Your task to perform on an android device: turn off airplane mode Image 0: 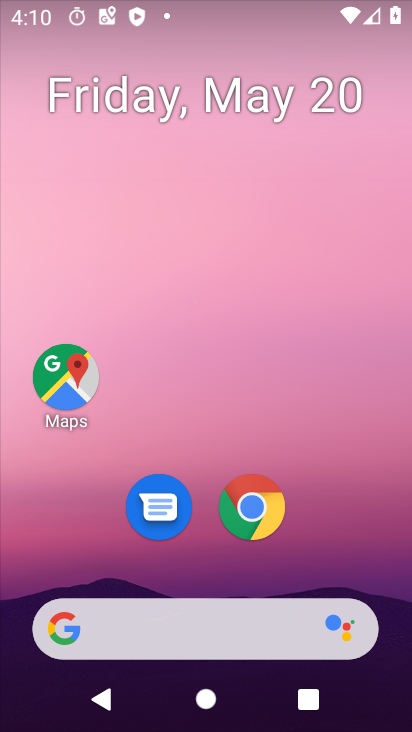
Step 0: drag from (317, 517) to (300, 157)
Your task to perform on an android device: turn off airplane mode Image 1: 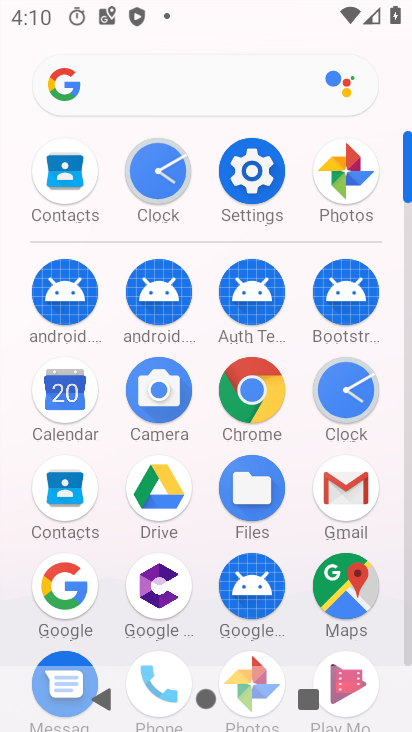
Step 1: click (253, 173)
Your task to perform on an android device: turn off airplane mode Image 2: 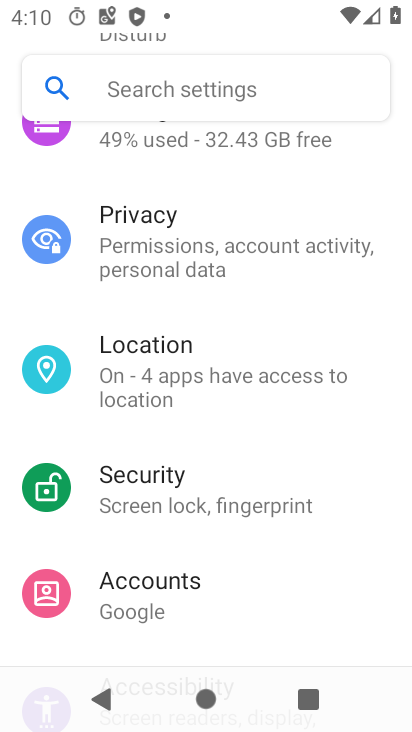
Step 2: drag from (224, 212) to (228, 337)
Your task to perform on an android device: turn off airplane mode Image 3: 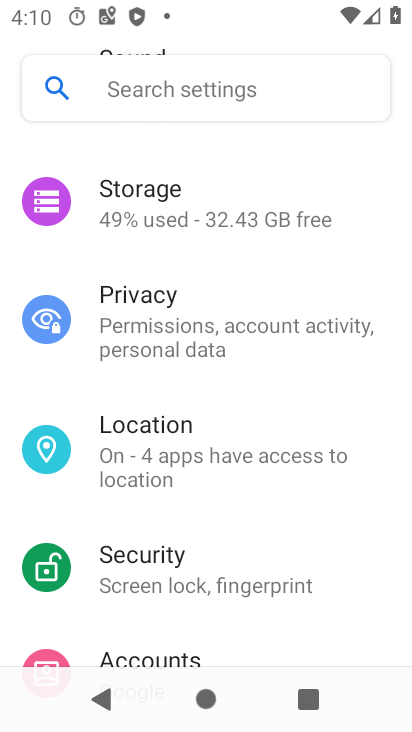
Step 3: drag from (247, 162) to (260, 307)
Your task to perform on an android device: turn off airplane mode Image 4: 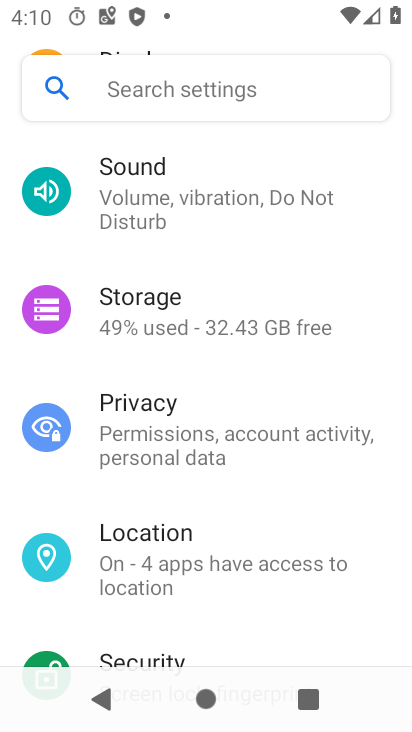
Step 4: drag from (230, 162) to (219, 328)
Your task to perform on an android device: turn off airplane mode Image 5: 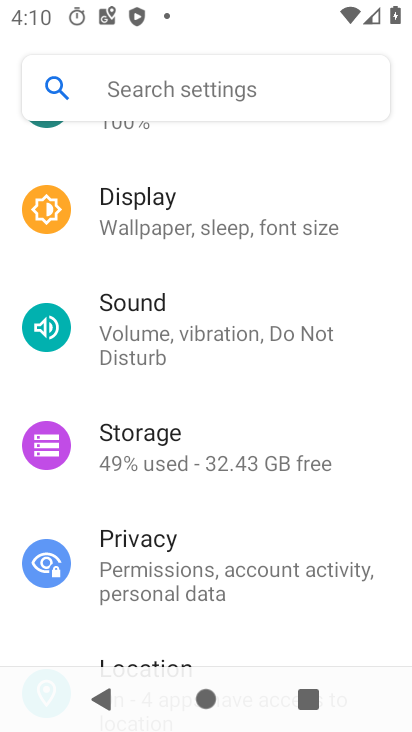
Step 5: drag from (194, 188) to (183, 342)
Your task to perform on an android device: turn off airplane mode Image 6: 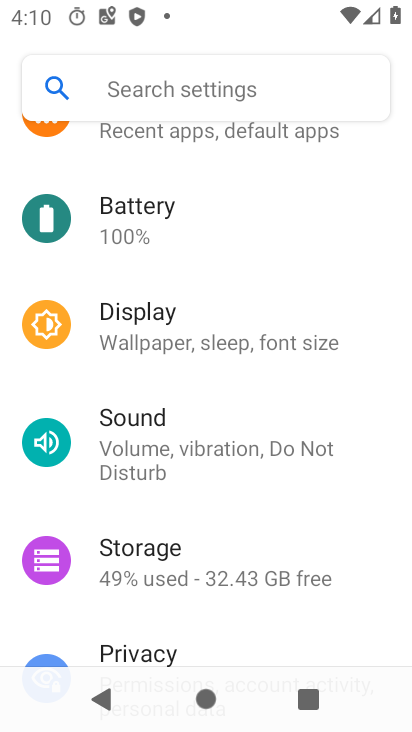
Step 6: drag from (217, 215) to (260, 383)
Your task to perform on an android device: turn off airplane mode Image 7: 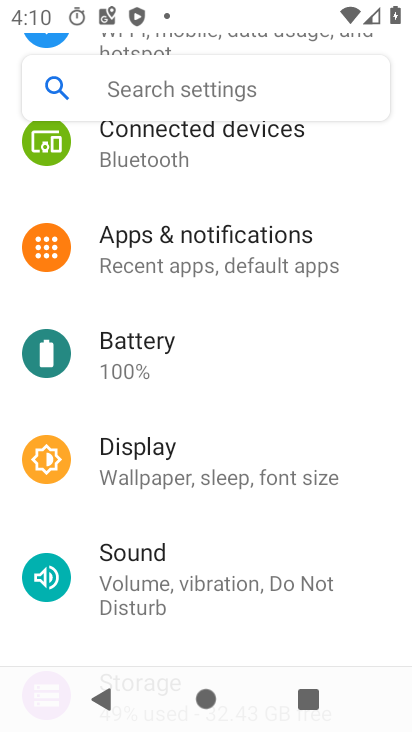
Step 7: drag from (243, 191) to (256, 340)
Your task to perform on an android device: turn off airplane mode Image 8: 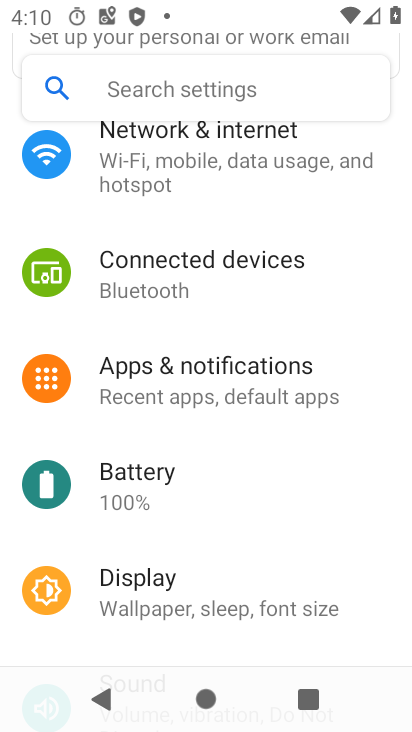
Step 8: drag from (194, 199) to (252, 279)
Your task to perform on an android device: turn off airplane mode Image 9: 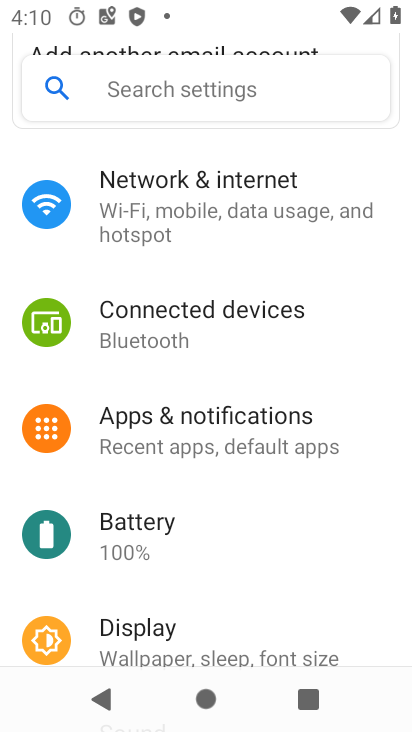
Step 9: click (200, 210)
Your task to perform on an android device: turn off airplane mode Image 10: 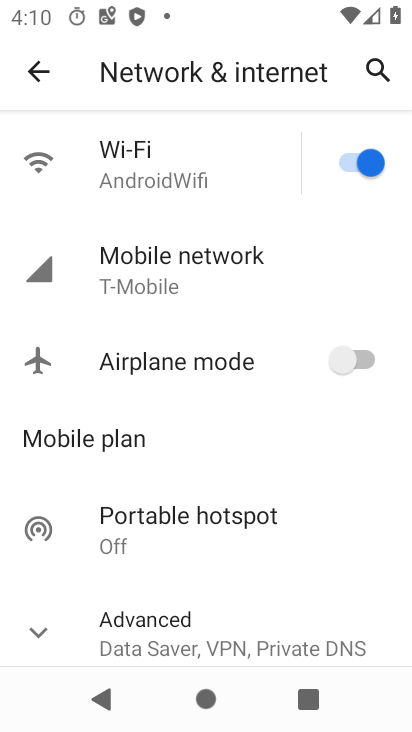
Step 10: task complete